Your task to perform on an android device: turn off translation in the chrome app Image 0: 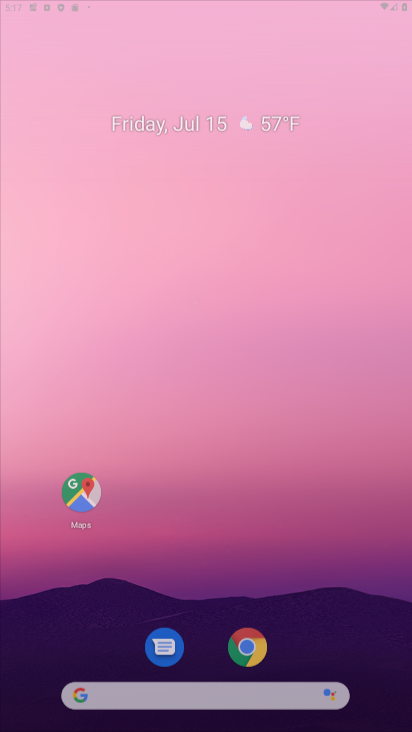
Step 0: click (158, 104)
Your task to perform on an android device: turn off translation in the chrome app Image 1: 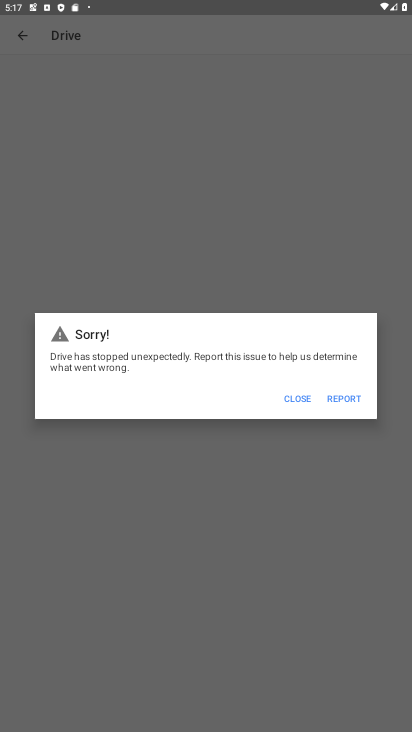
Step 1: press home button
Your task to perform on an android device: turn off translation in the chrome app Image 2: 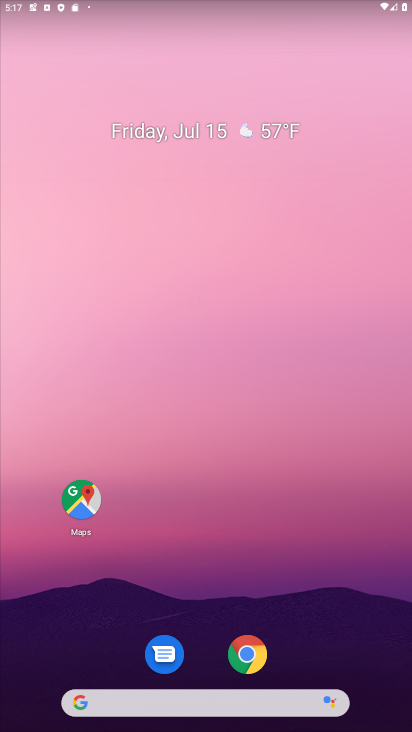
Step 2: click (235, 644)
Your task to perform on an android device: turn off translation in the chrome app Image 3: 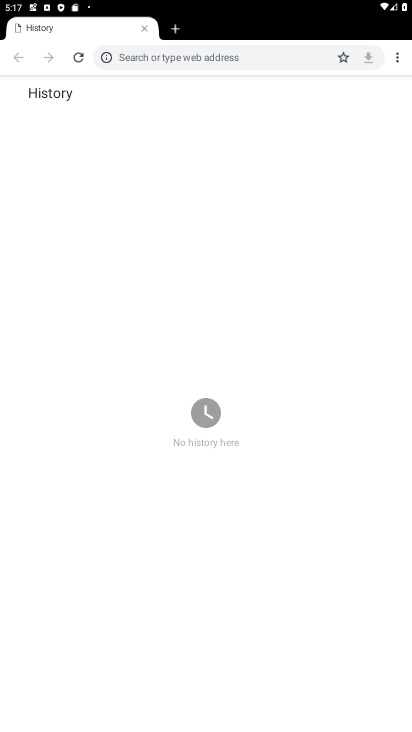
Step 3: click (390, 64)
Your task to perform on an android device: turn off translation in the chrome app Image 4: 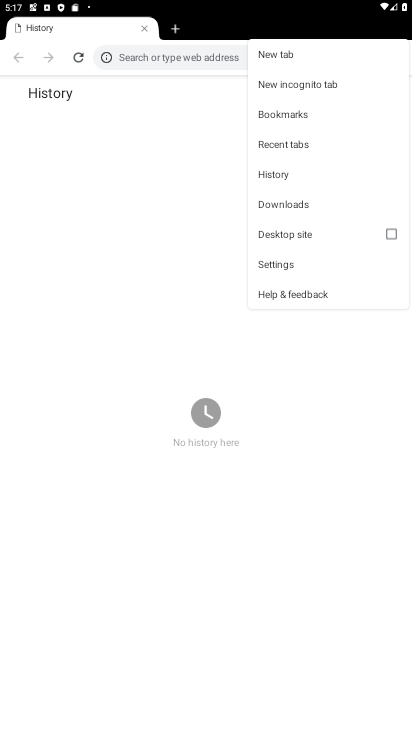
Step 4: click (273, 269)
Your task to perform on an android device: turn off translation in the chrome app Image 5: 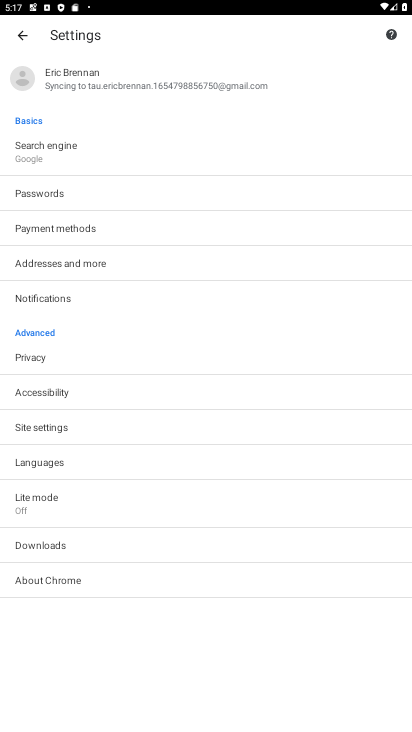
Step 5: click (78, 450)
Your task to perform on an android device: turn off translation in the chrome app Image 6: 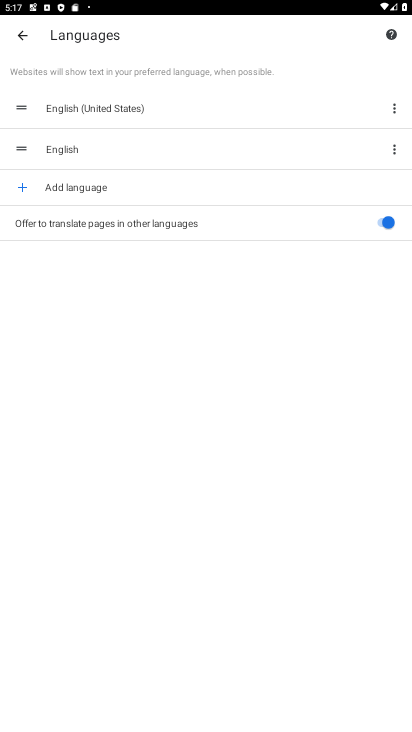
Step 6: click (386, 229)
Your task to perform on an android device: turn off translation in the chrome app Image 7: 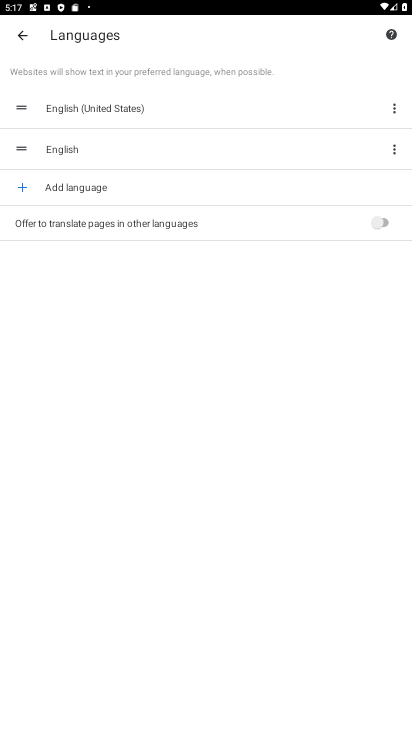
Step 7: task complete